Your task to perform on an android device: Find coffee shops on Maps Image 0: 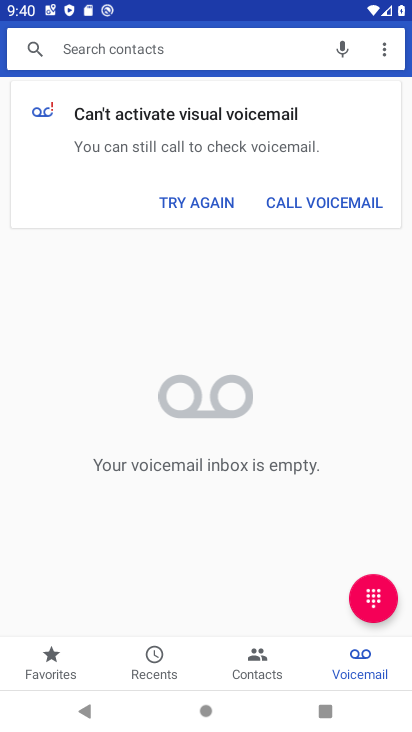
Step 0: press home button
Your task to perform on an android device: Find coffee shops on Maps Image 1: 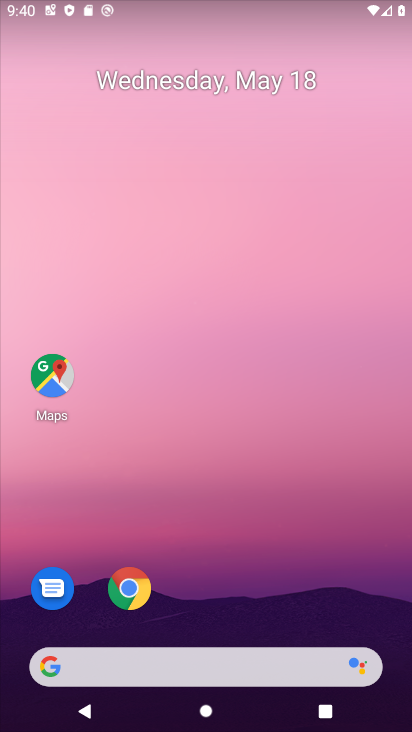
Step 1: drag from (260, 690) to (241, 164)
Your task to perform on an android device: Find coffee shops on Maps Image 2: 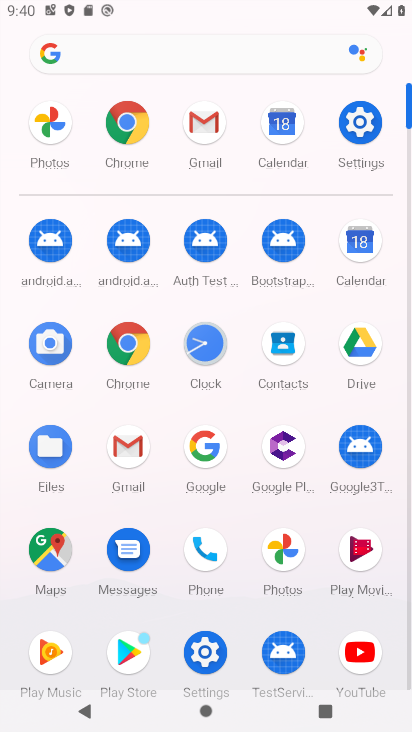
Step 2: click (46, 545)
Your task to perform on an android device: Find coffee shops on Maps Image 3: 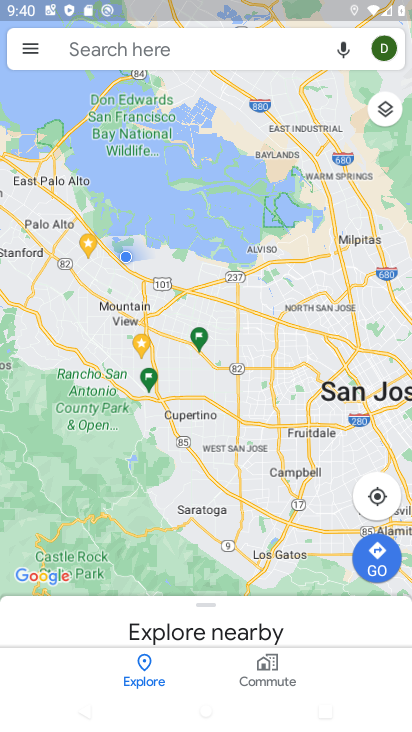
Step 3: click (155, 44)
Your task to perform on an android device: Find coffee shops on Maps Image 4: 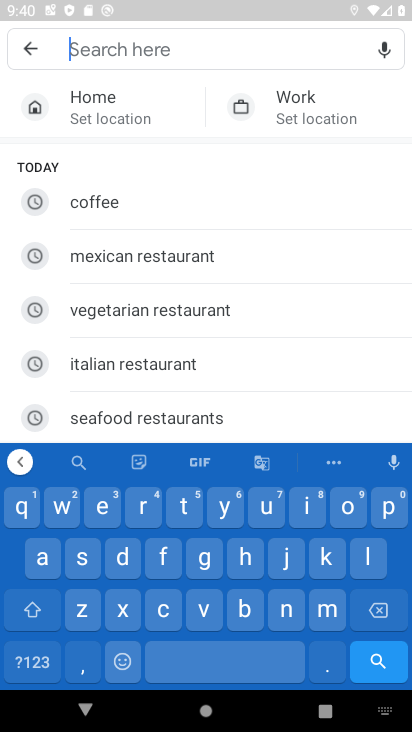
Step 4: click (83, 195)
Your task to perform on an android device: Find coffee shops on Maps Image 5: 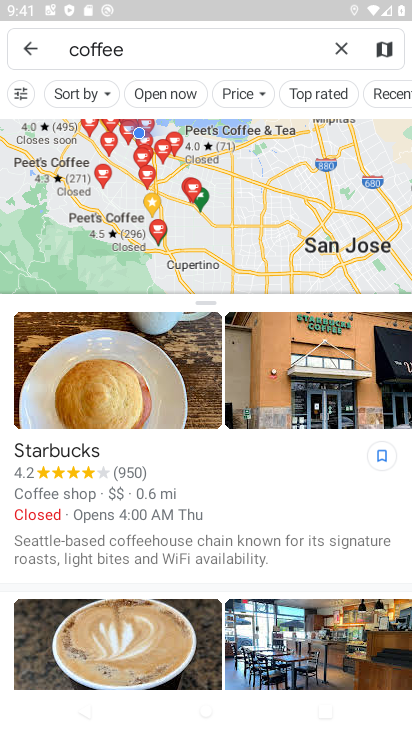
Step 5: click (123, 167)
Your task to perform on an android device: Find coffee shops on Maps Image 6: 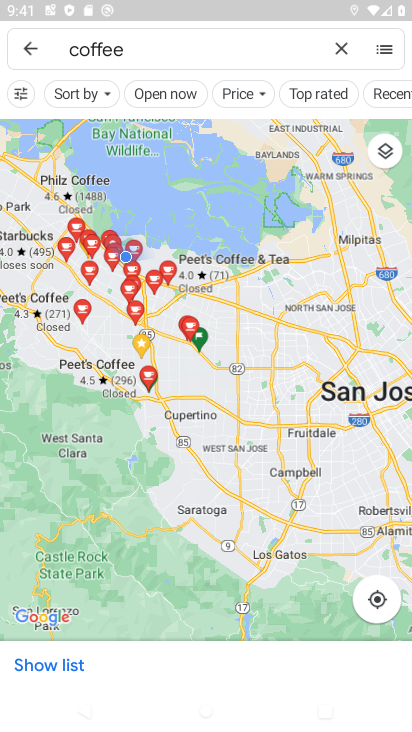
Step 6: click (102, 290)
Your task to perform on an android device: Find coffee shops on Maps Image 7: 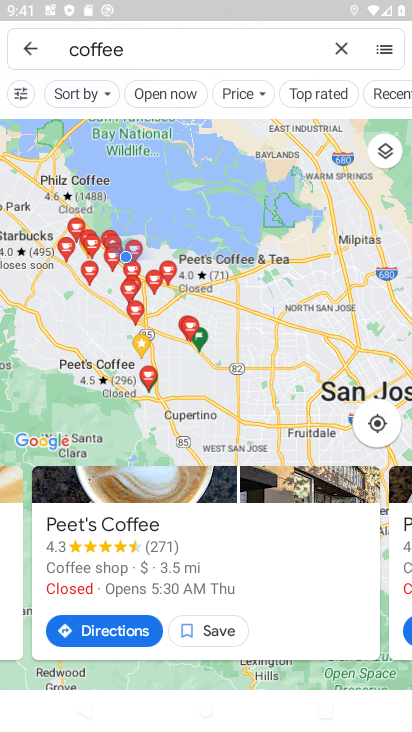
Step 7: task complete